Your task to perform on an android device: open a bookmark in the chrome app Image 0: 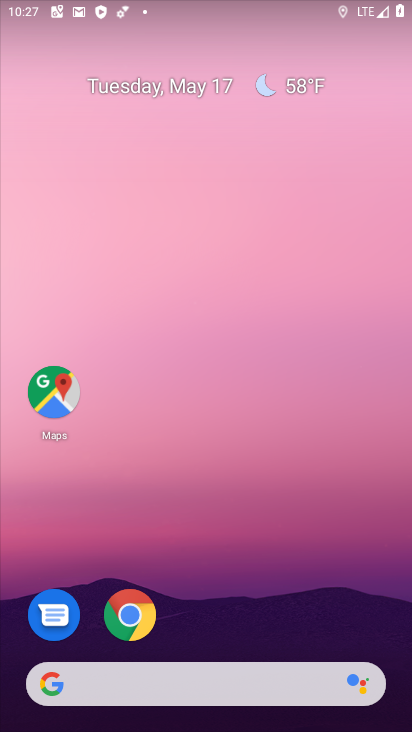
Step 0: click (131, 594)
Your task to perform on an android device: open a bookmark in the chrome app Image 1: 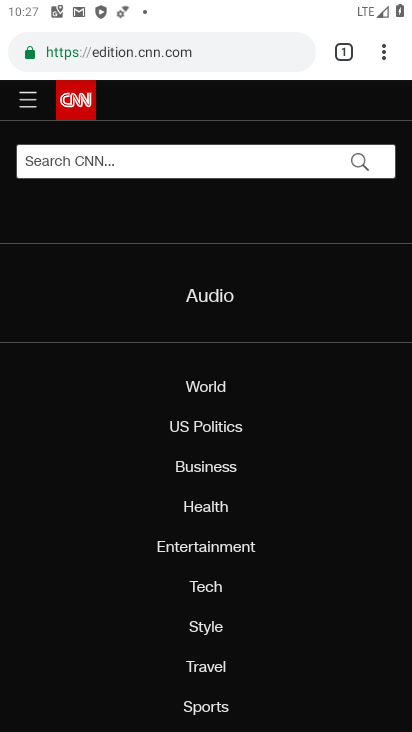
Step 1: task complete